Your task to perform on an android device: Open the calendar app, open the side menu, and click the "Day" option Image 0: 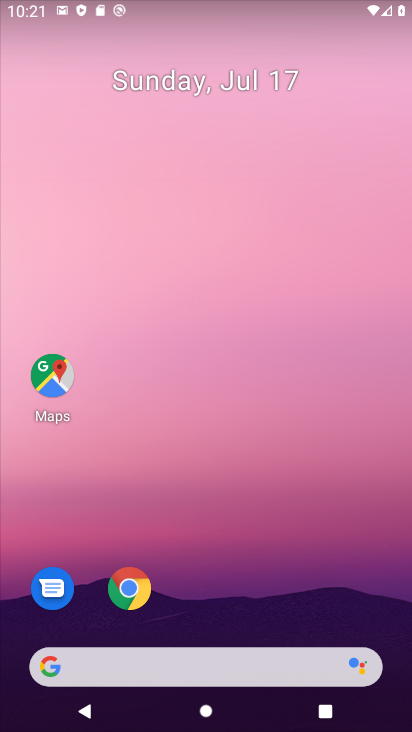
Step 0: drag from (268, 623) to (407, 67)
Your task to perform on an android device: Open the calendar app, open the side menu, and click the "Day" option Image 1: 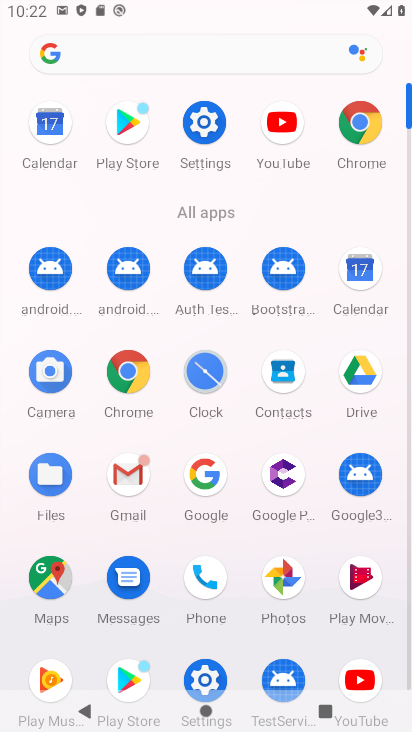
Step 1: click (356, 264)
Your task to perform on an android device: Open the calendar app, open the side menu, and click the "Day" option Image 2: 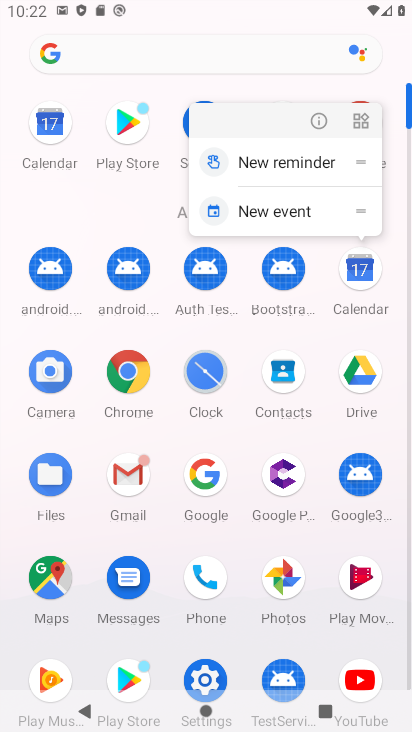
Step 2: click (346, 294)
Your task to perform on an android device: Open the calendar app, open the side menu, and click the "Day" option Image 3: 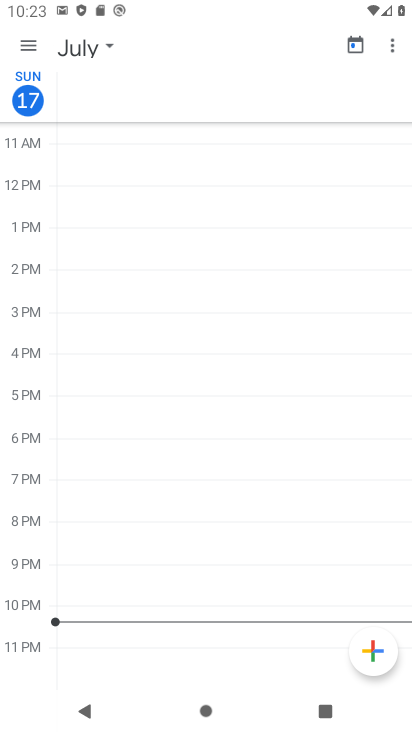
Step 3: click (17, 58)
Your task to perform on an android device: Open the calendar app, open the side menu, and click the "Day" option Image 4: 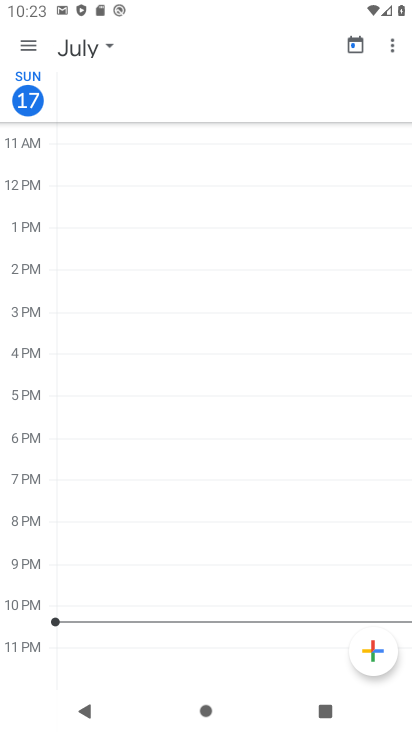
Step 4: task complete